Your task to perform on an android device: Open the calendar and show me this week's events? Image 0: 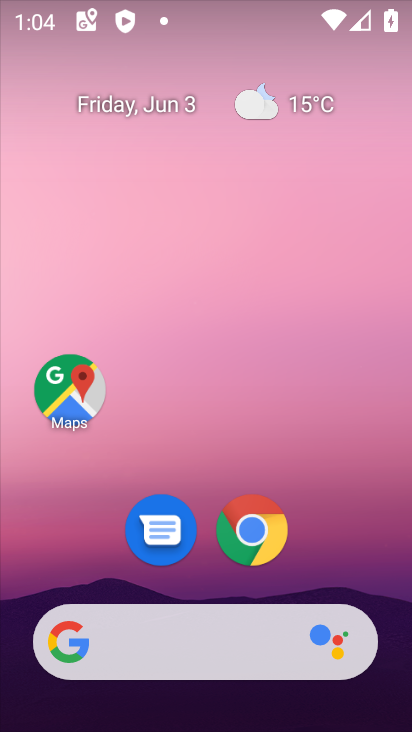
Step 0: press home button
Your task to perform on an android device: Open the calendar and show me this week's events? Image 1: 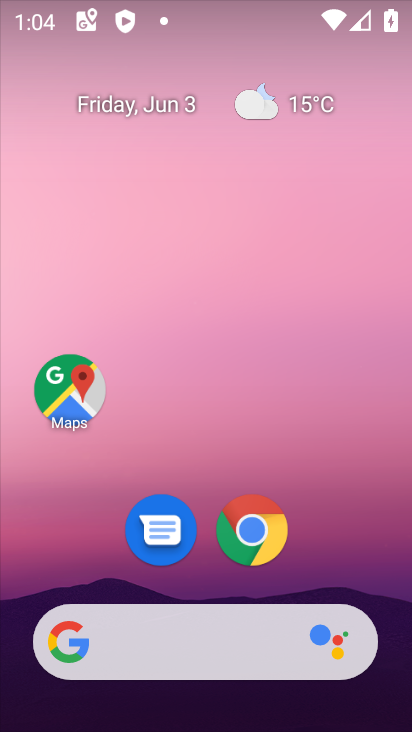
Step 1: drag from (390, 619) to (377, 125)
Your task to perform on an android device: Open the calendar and show me this week's events? Image 2: 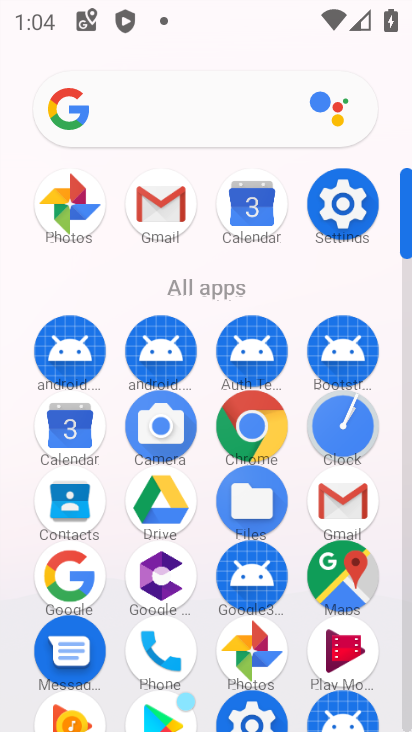
Step 2: click (84, 431)
Your task to perform on an android device: Open the calendar and show me this week's events? Image 3: 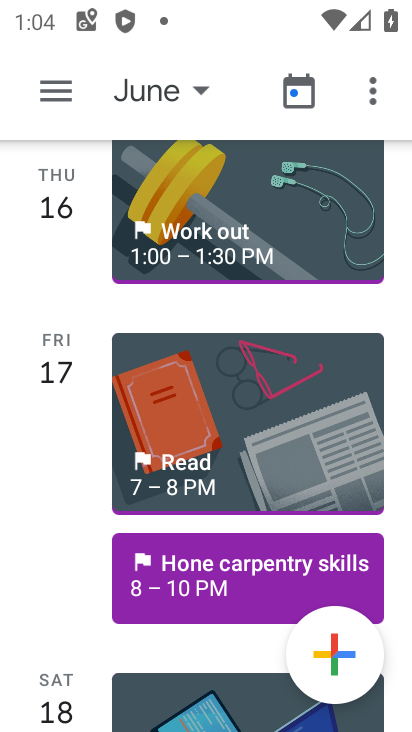
Step 3: task complete